Your task to perform on an android device: see tabs open on other devices in the chrome app Image 0: 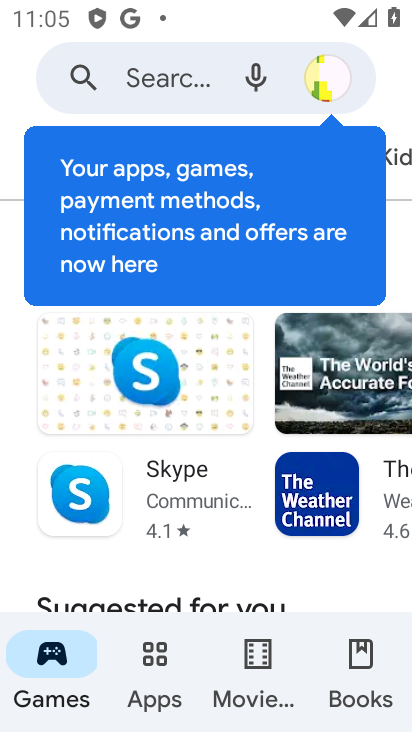
Step 0: press home button
Your task to perform on an android device: see tabs open on other devices in the chrome app Image 1: 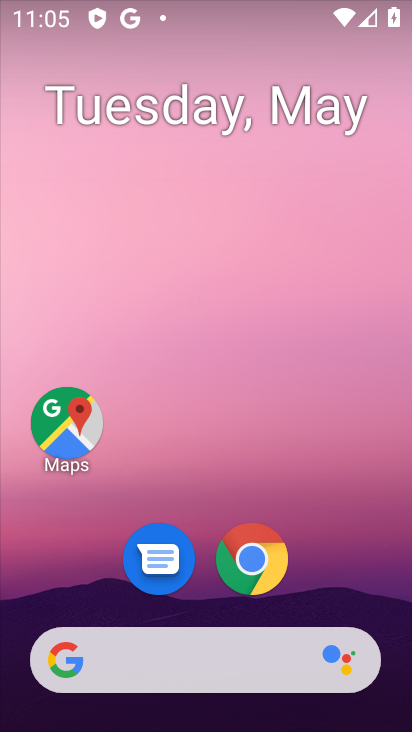
Step 1: drag from (334, 590) to (259, 90)
Your task to perform on an android device: see tabs open on other devices in the chrome app Image 2: 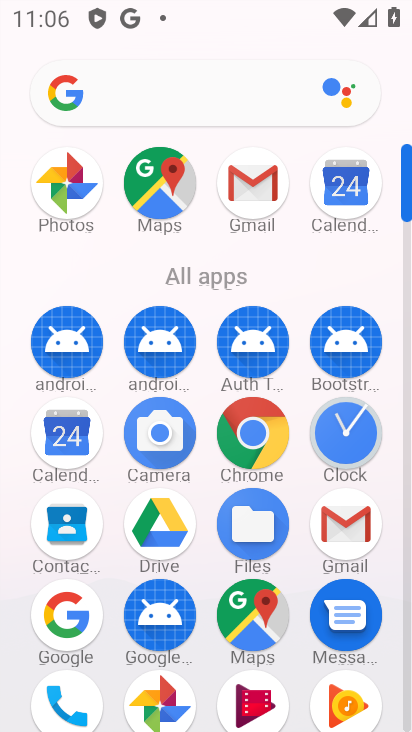
Step 2: click (259, 447)
Your task to perform on an android device: see tabs open on other devices in the chrome app Image 3: 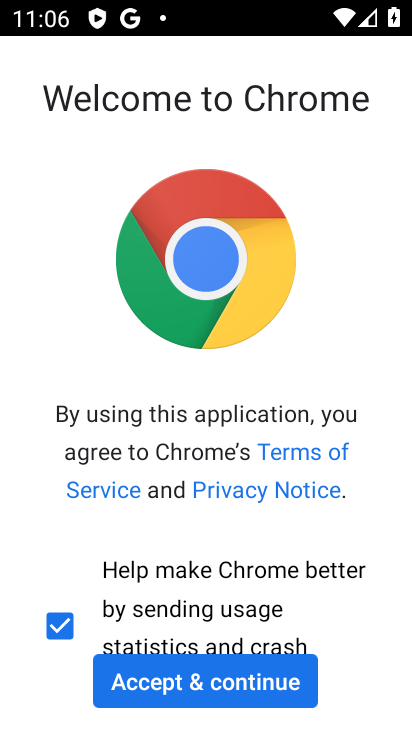
Step 3: click (144, 691)
Your task to perform on an android device: see tabs open on other devices in the chrome app Image 4: 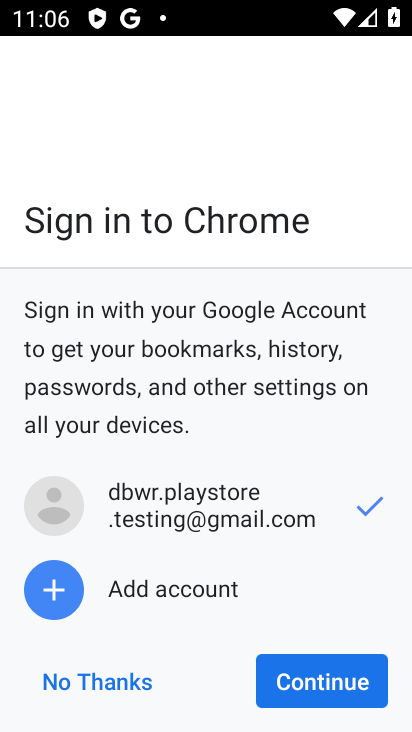
Step 4: click (101, 685)
Your task to perform on an android device: see tabs open on other devices in the chrome app Image 5: 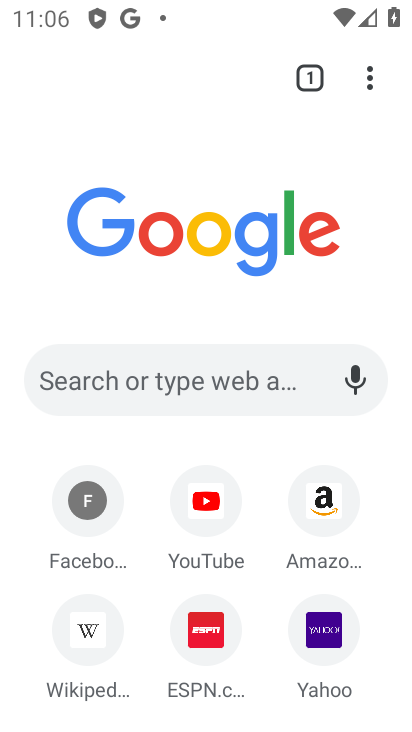
Step 5: drag from (358, 80) to (115, 389)
Your task to perform on an android device: see tabs open on other devices in the chrome app Image 6: 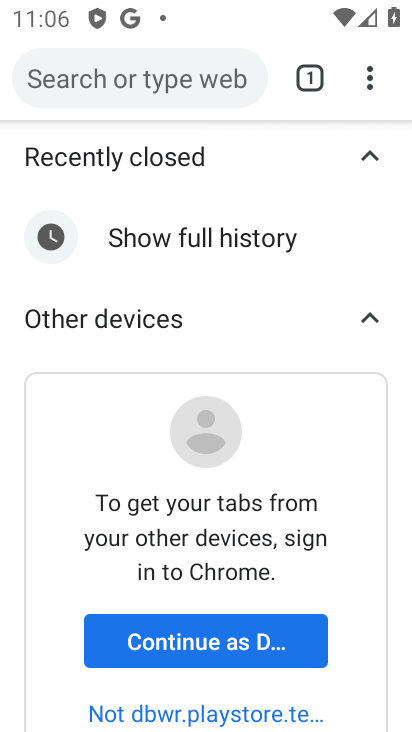
Step 6: click (243, 649)
Your task to perform on an android device: see tabs open on other devices in the chrome app Image 7: 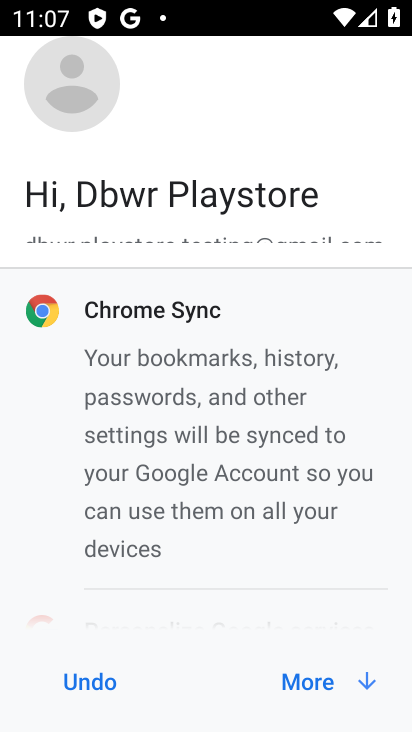
Step 7: task complete